Your task to perform on an android device: check android version Image 0: 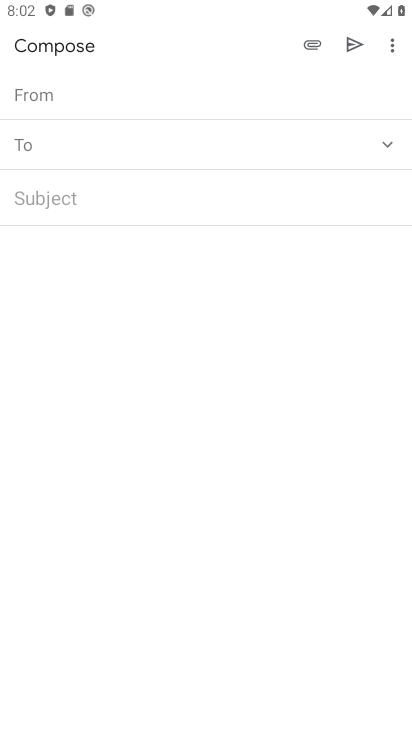
Step 0: click (130, 629)
Your task to perform on an android device: check android version Image 1: 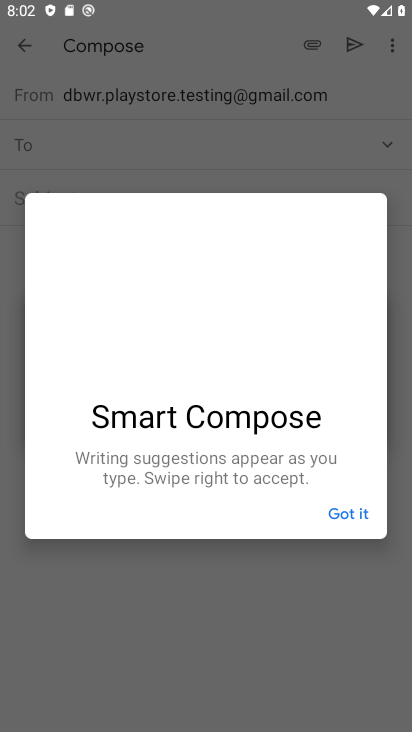
Step 1: press home button
Your task to perform on an android device: check android version Image 2: 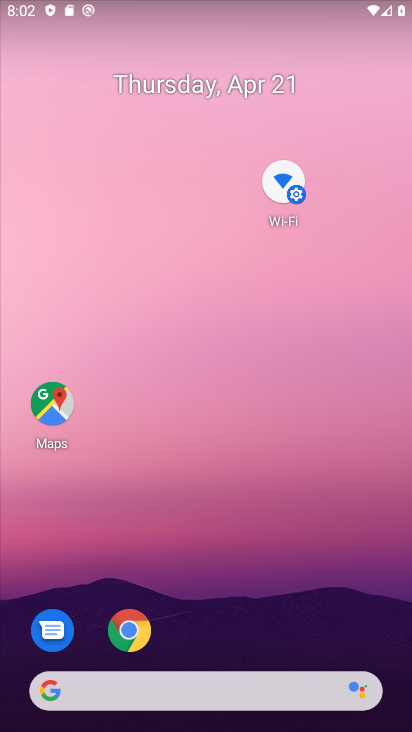
Step 2: drag from (210, 622) to (170, 48)
Your task to perform on an android device: check android version Image 3: 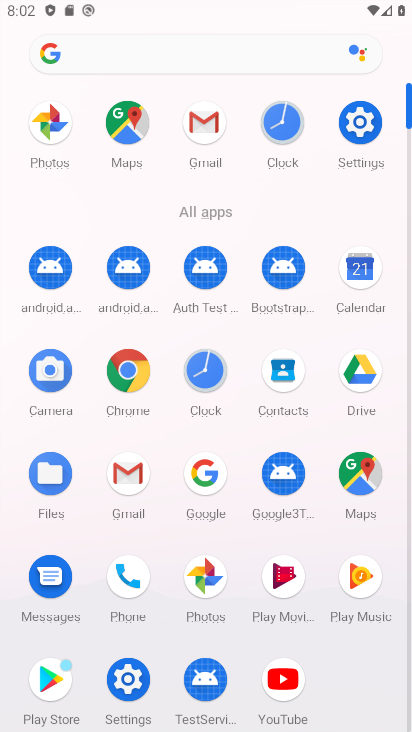
Step 3: click (361, 135)
Your task to perform on an android device: check android version Image 4: 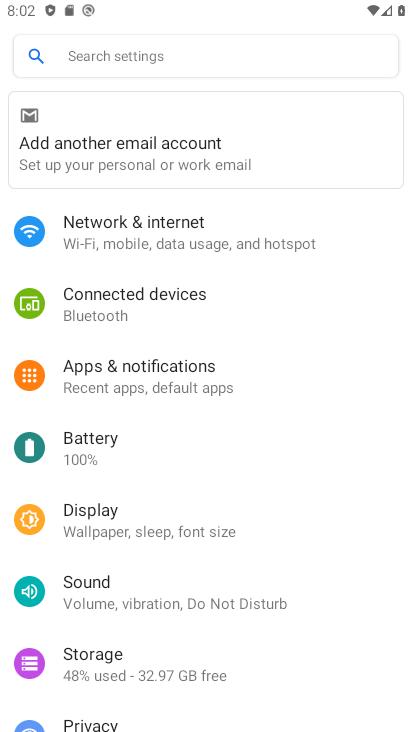
Step 4: drag from (349, 653) to (345, 101)
Your task to perform on an android device: check android version Image 5: 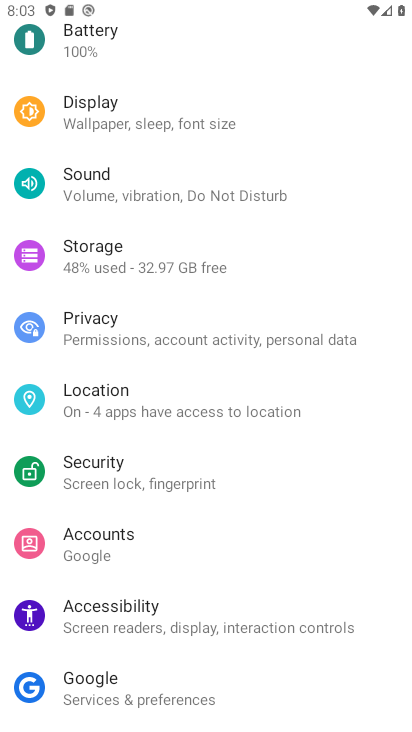
Step 5: drag from (364, 632) to (371, 193)
Your task to perform on an android device: check android version Image 6: 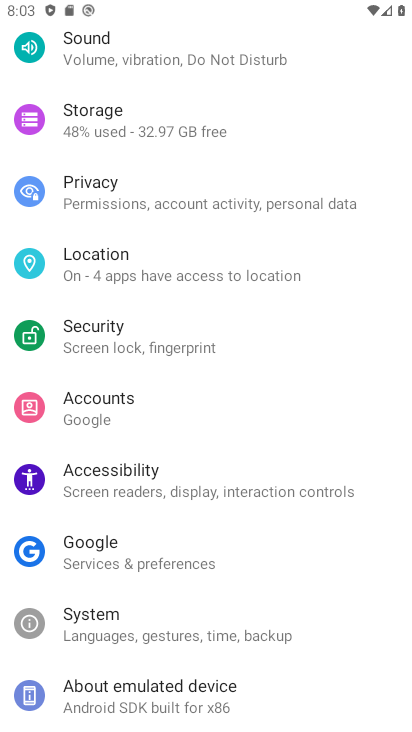
Step 6: click (167, 684)
Your task to perform on an android device: check android version Image 7: 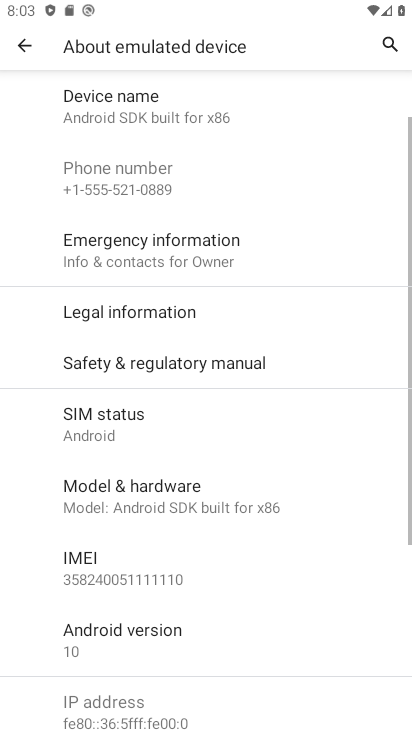
Step 7: click (113, 637)
Your task to perform on an android device: check android version Image 8: 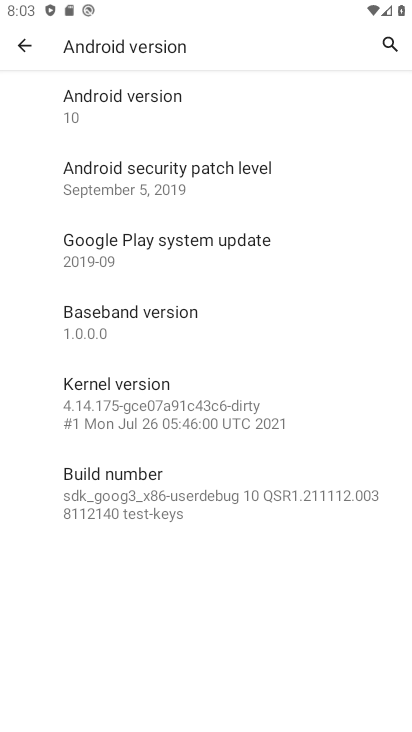
Step 8: task complete